Your task to perform on an android device: turn on translation in the chrome app Image 0: 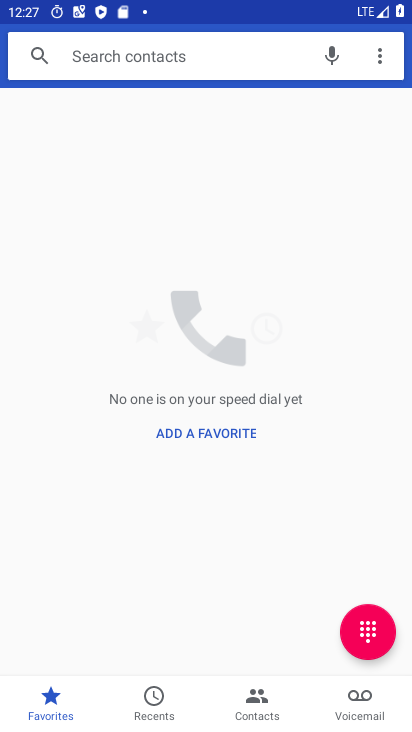
Step 0: press home button
Your task to perform on an android device: turn on translation in the chrome app Image 1: 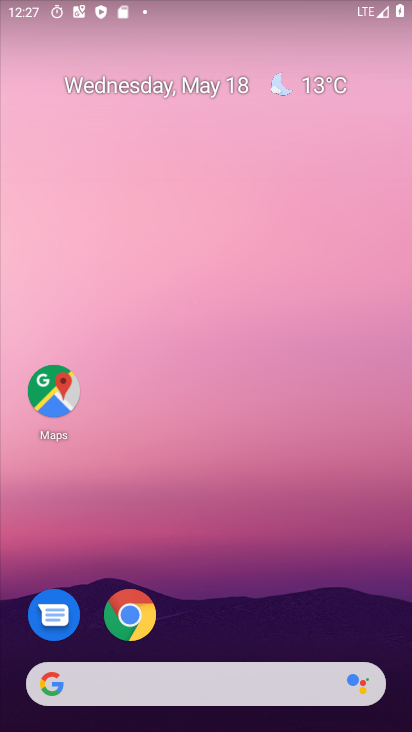
Step 1: click (124, 612)
Your task to perform on an android device: turn on translation in the chrome app Image 2: 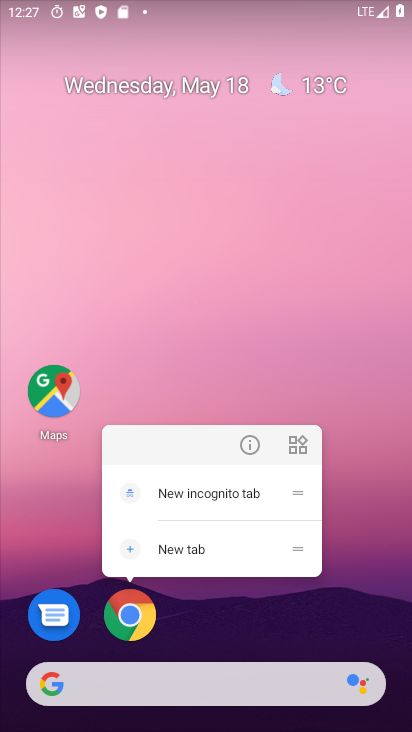
Step 2: click (133, 630)
Your task to perform on an android device: turn on translation in the chrome app Image 3: 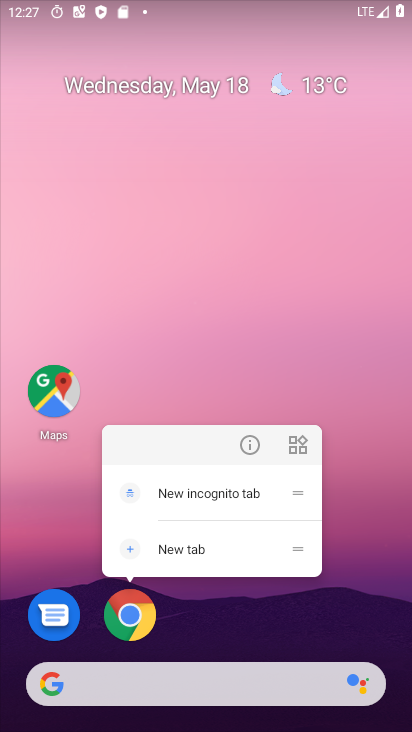
Step 3: click (131, 620)
Your task to perform on an android device: turn on translation in the chrome app Image 4: 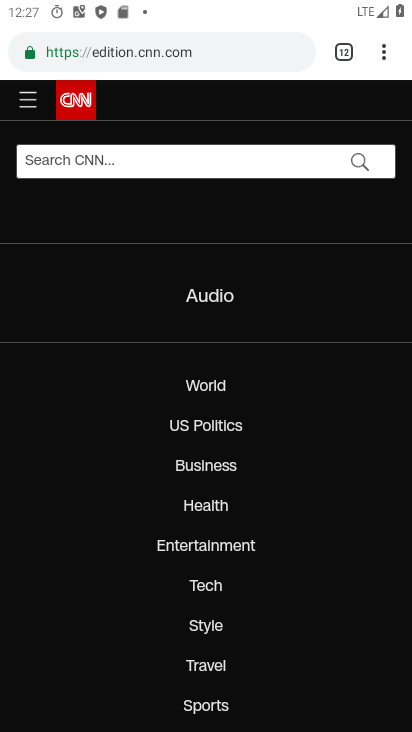
Step 4: drag from (384, 53) to (244, 632)
Your task to perform on an android device: turn on translation in the chrome app Image 5: 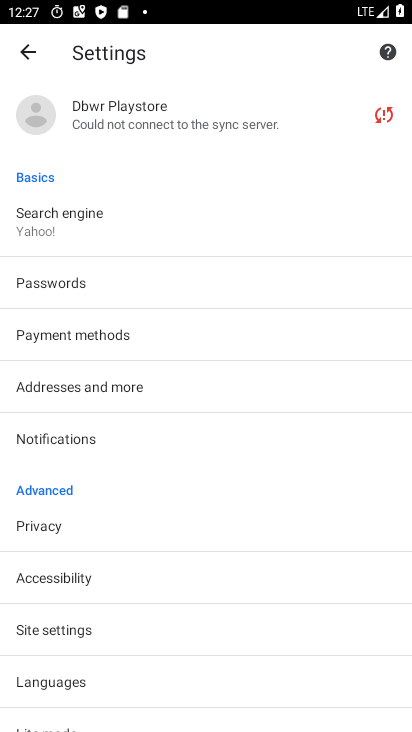
Step 5: click (80, 680)
Your task to perform on an android device: turn on translation in the chrome app Image 6: 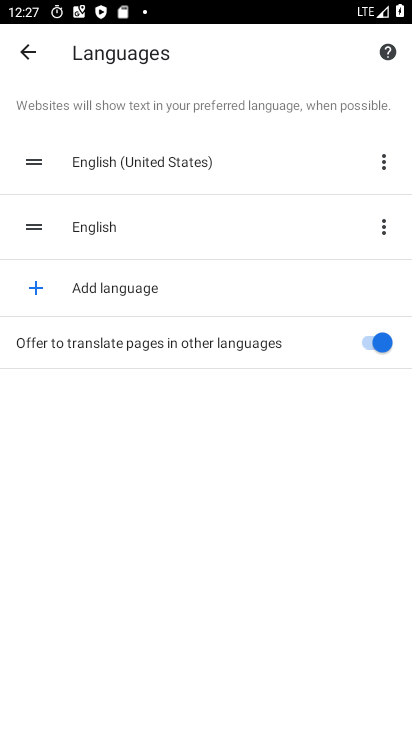
Step 6: task complete